Your task to perform on an android device: allow cookies in the chrome app Image 0: 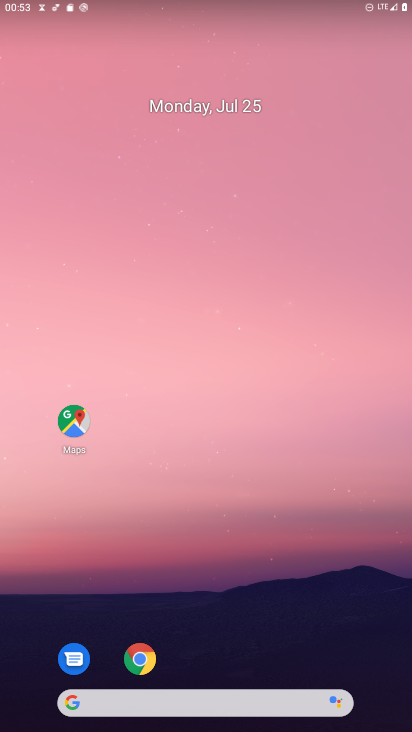
Step 0: drag from (219, 595) to (168, 239)
Your task to perform on an android device: allow cookies in the chrome app Image 1: 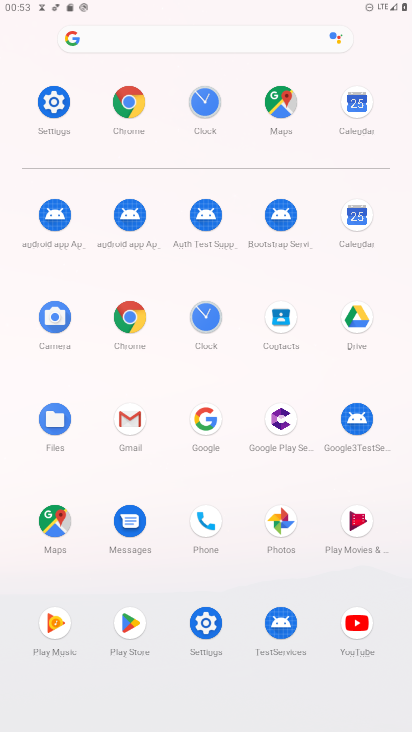
Step 1: click (137, 104)
Your task to perform on an android device: allow cookies in the chrome app Image 2: 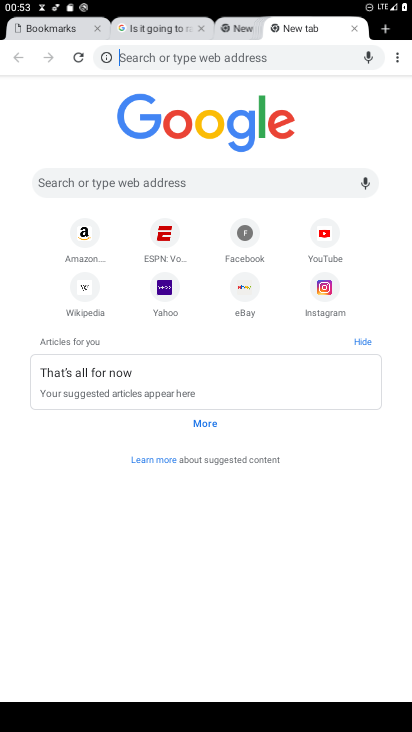
Step 2: click (401, 52)
Your task to perform on an android device: allow cookies in the chrome app Image 3: 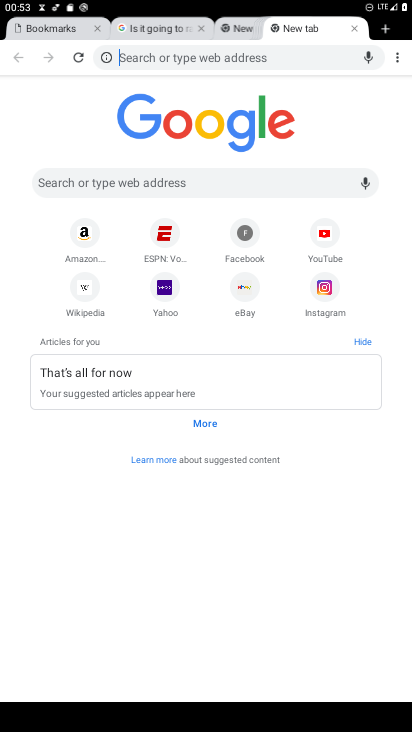
Step 3: click (406, 58)
Your task to perform on an android device: allow cookies in the chrome app Image 4: 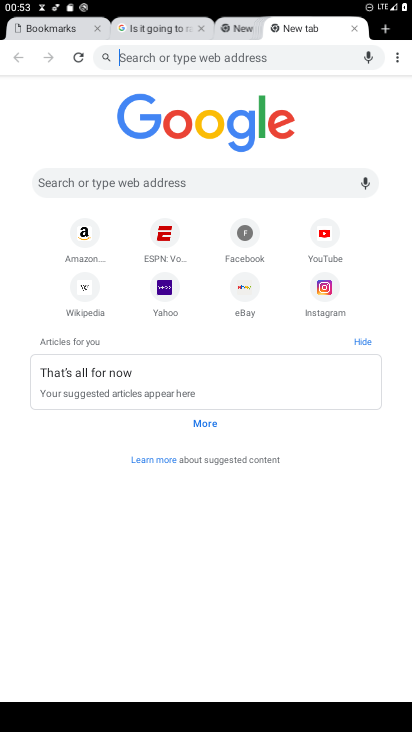
Step 4: click (406, 58)
Your task to perform on an android device: allow cookies in the chrome app Image 5: 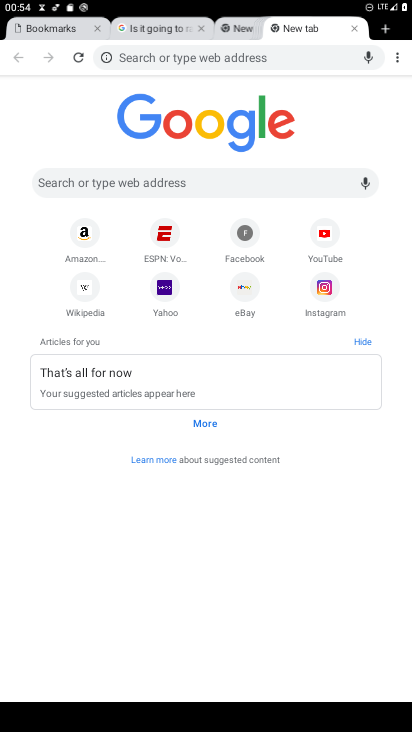
Step 5: click (398, 58)
Your task to perform on an android device: allow cookies in the chrome app Image 6: 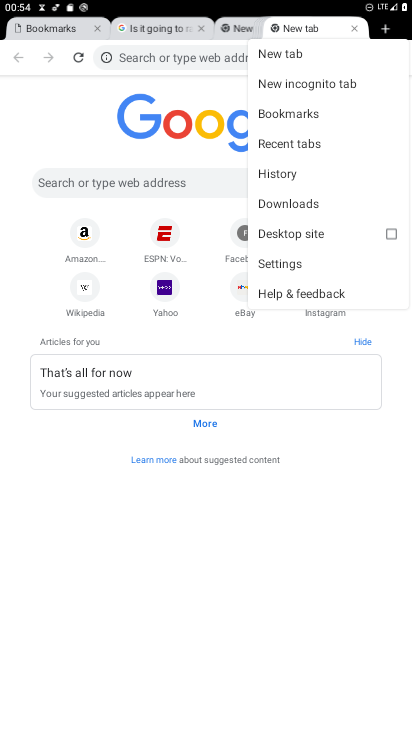
Step 6: click (291, 261)
Your task to perform on an android device: allow cookies in the chrome app Image 7: 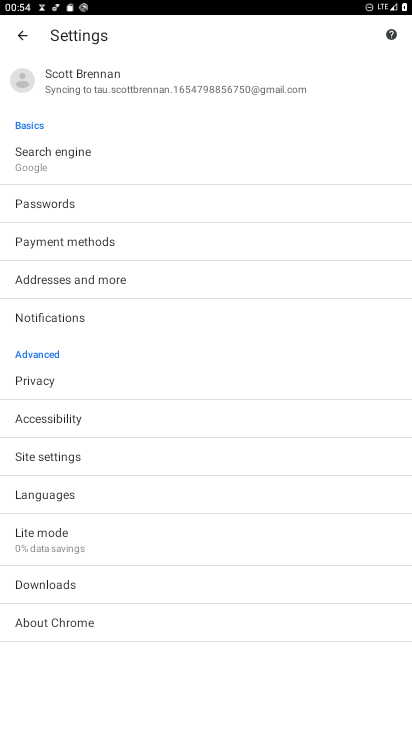
Step 7: click (81, 382)
Your task to perform on an android device: allow cookies in the chrome app Image 8: 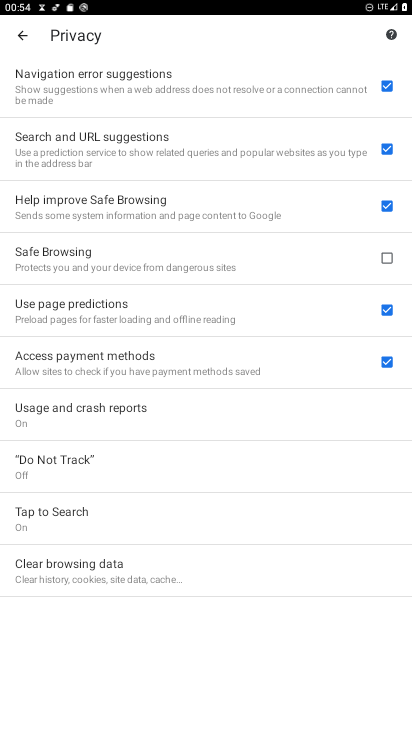
Step 8: click (40, 35)
Your task to perform on an android device: allow cookies in the chrome app Image 9: 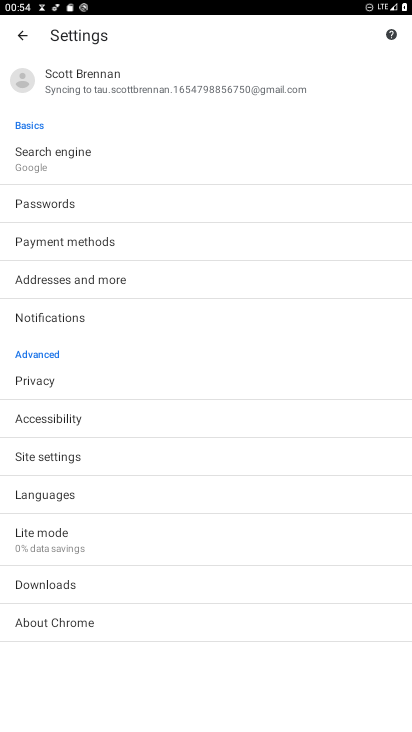
Step 9: click (65, 449)
Your task to perform on an android device: allow cookies in the chrome app Image 10: 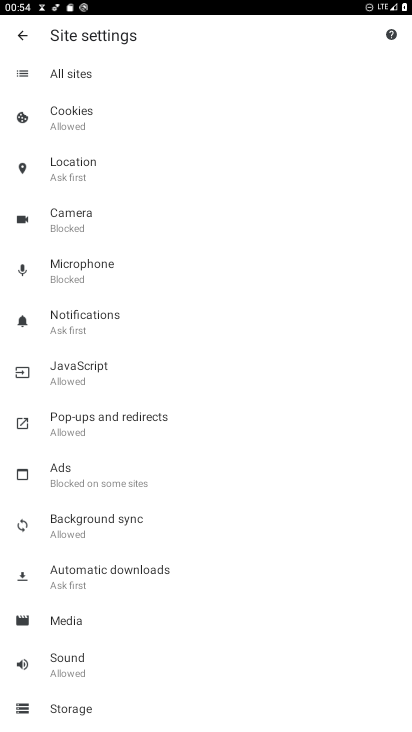
Step 10: click (84, 124)
Your task to perform on an android device: allow cookies in the chrome app Image 11: 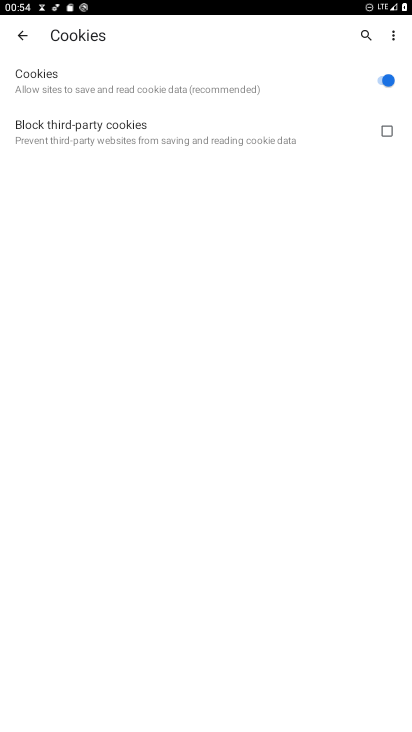
Step 11: task complete